Your task to perform on an android device: find which apps use the phone's location Image 0: 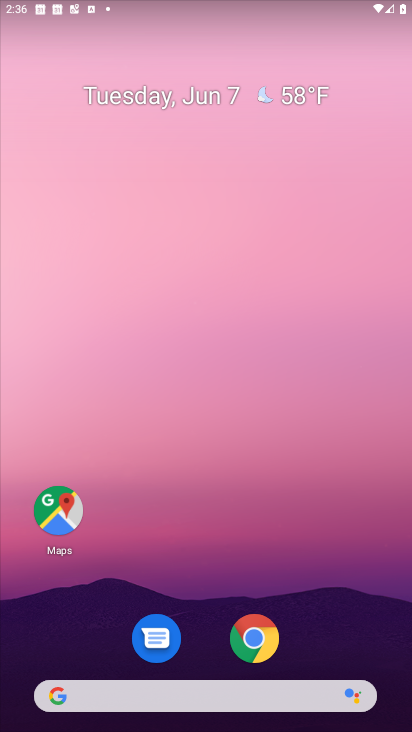
Step 0: drag from (199, 604) to (210, 245)
Your task to perform on an android device: find which apps use the phone's location Image 1: 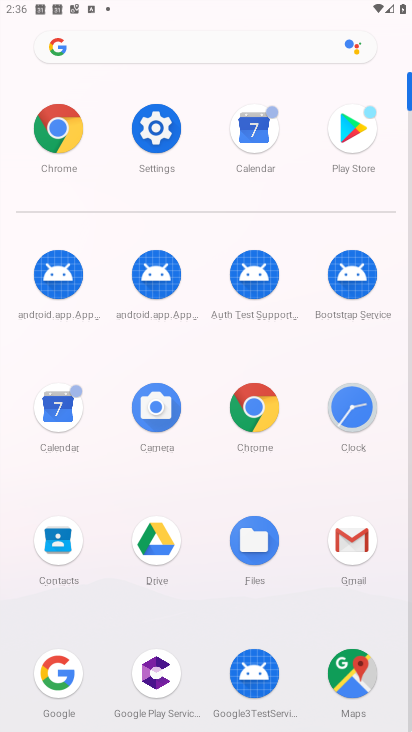
Step 1: click (152, 128)
Your task to perform on an android device: find which apps use the phone's location Image 2: 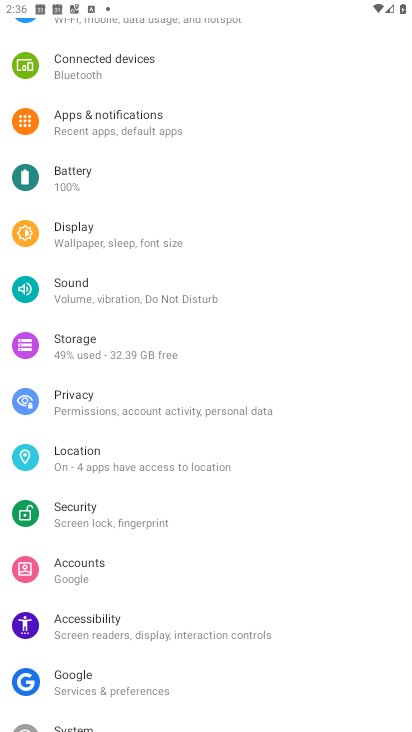
Step 2: click (86, 455)
Your task to perform on an android device: find which apps use the phone's location Image 3: 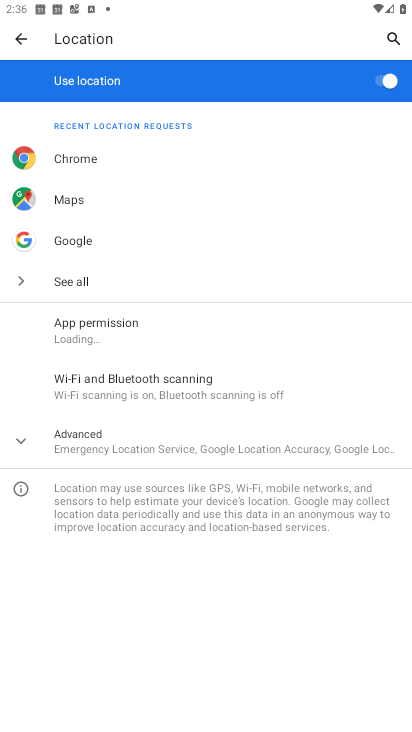
Step 3: click (107, 281)
Your task to perform on an android device: find which apps use the phone's location Image 4: 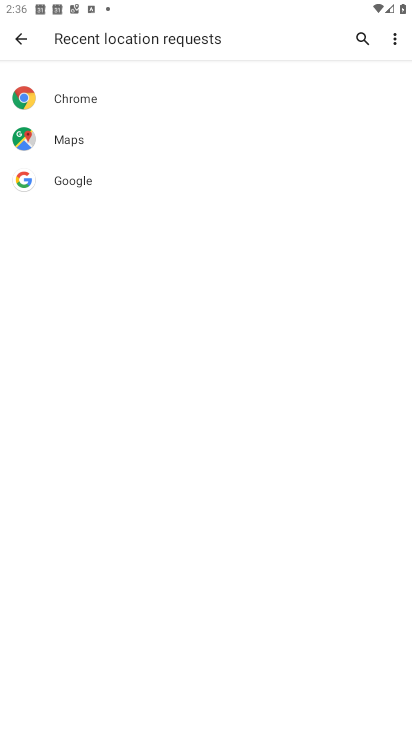
Step 4: task complete